Your task to perform on an android device: turn on sleep mode Image 0: 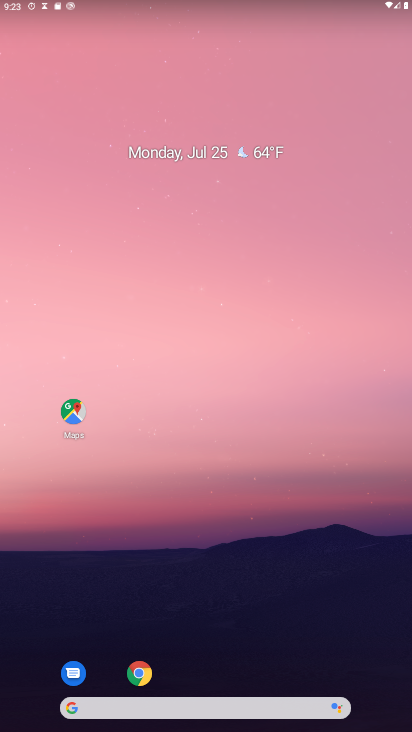
Step 0: press home button
Your task to perform on an android device: turn on sleep mode Image 1: 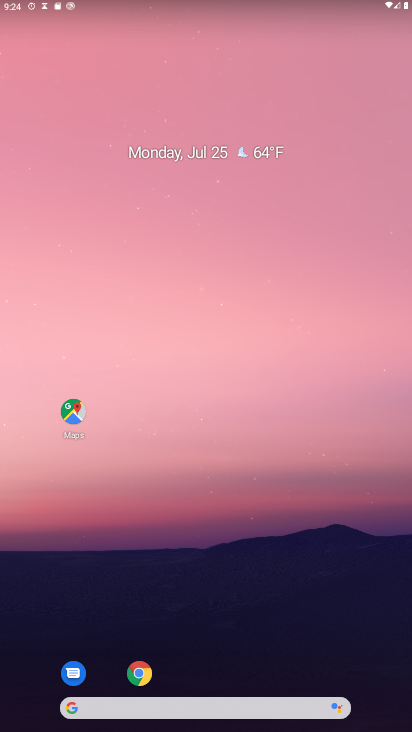
Step 1: drag from (224, 674) to (230, 35)
Your task to perform on an android device: turn on sleep mode Image 2: 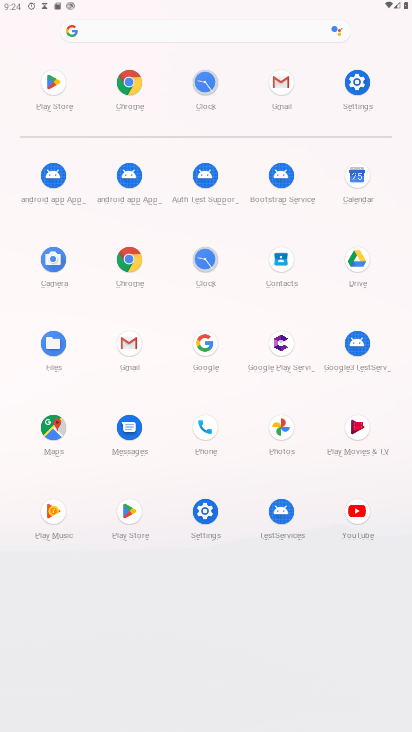
Step 2: click (355, 75)
Your task to perform on an android device: turn on sleep mode Image 3: 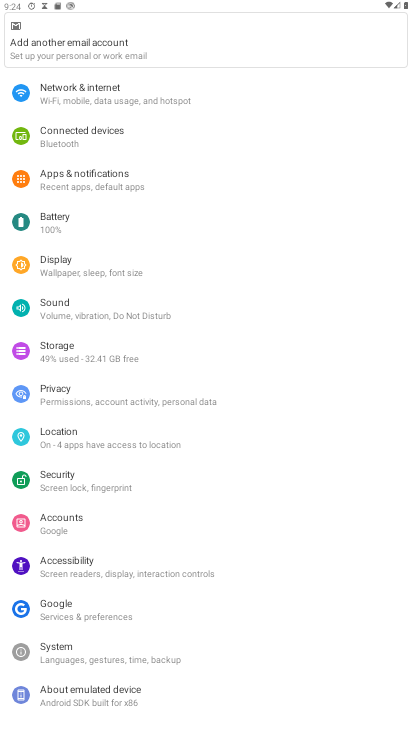
Step 3: click (83, 260)
Your task to perform on an android device: turn on sleep mode Image 4: 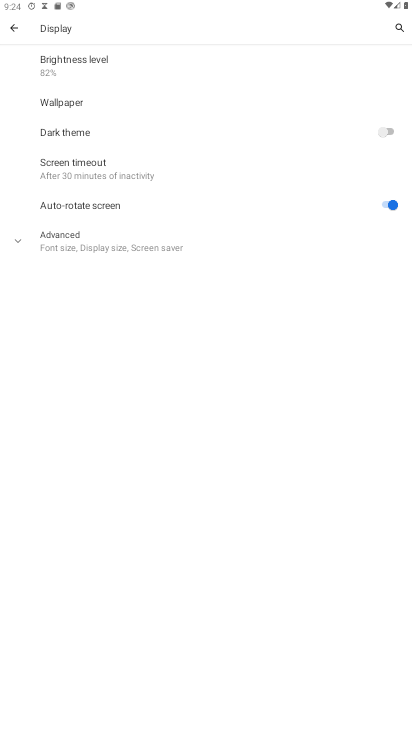
Step 4: click (15, 237)
Your task to perform on an android device: turn on sleep mode Image 5: 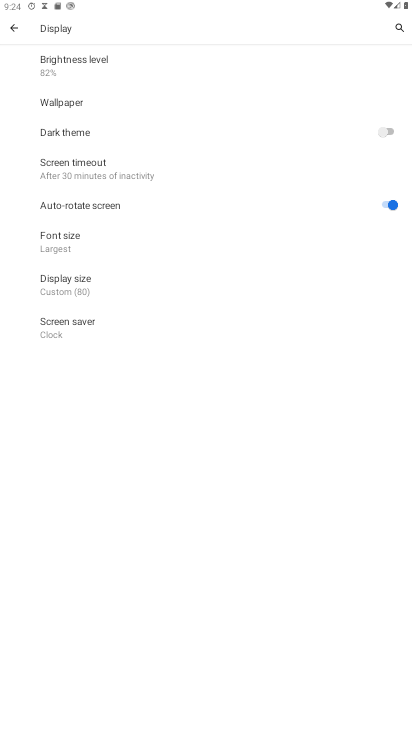
Step 5: task complete